Your task to perform on an android device: Go to Wikipedia Image 0: 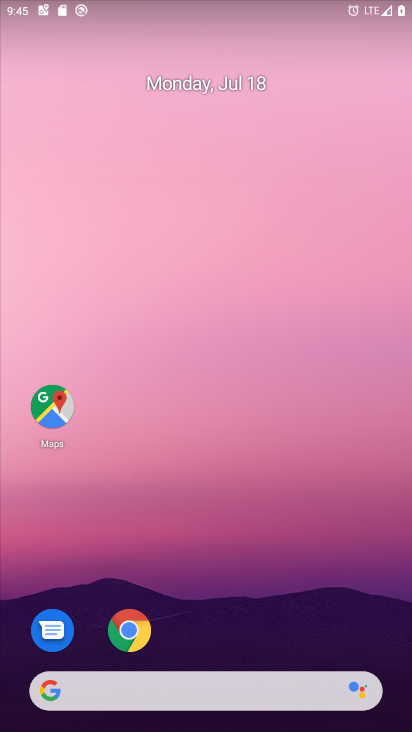
Step 0: click (139, 636)
Your task to perform on an android device: Go to Wikipedia Image 1: 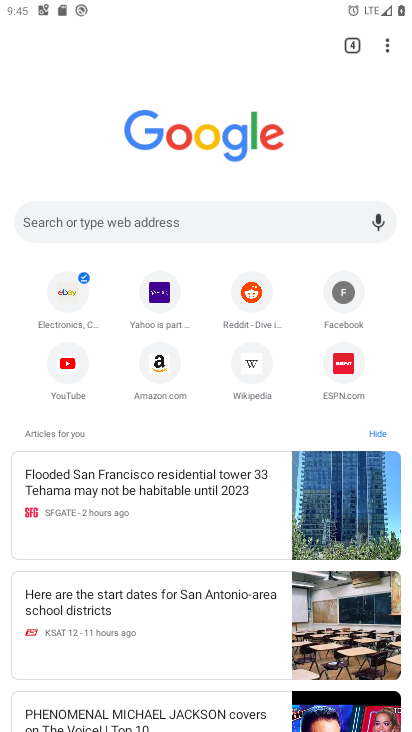
Step 1: click (237, 380)
Your task to perform on an android device: Go to Wikipedia Image 2: 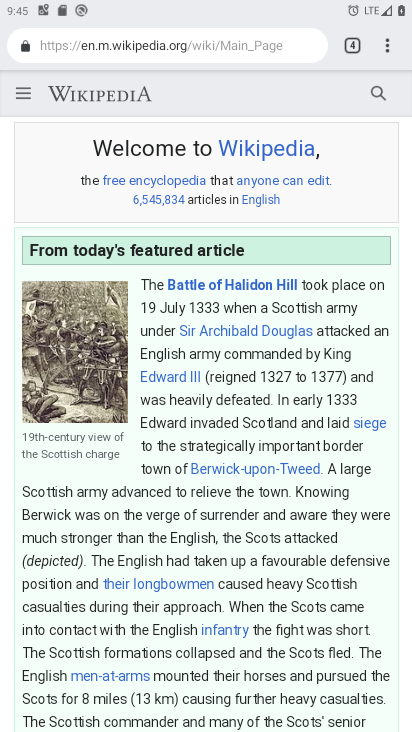
Step 2: task complete